Your task to perform on an android device: turn on showing notifications on the lock screen Image 0: 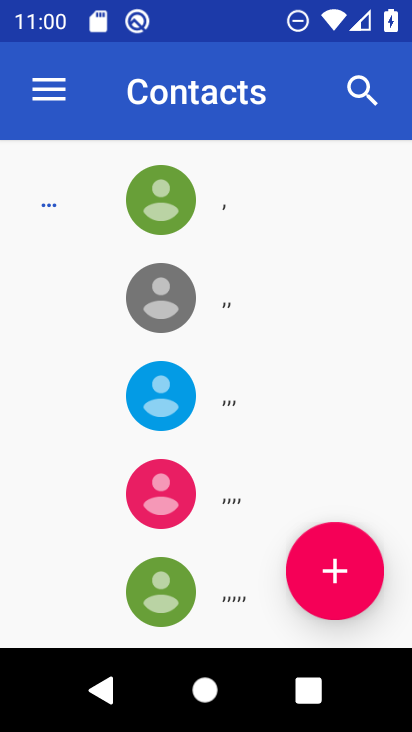
Step 0: press home button
Your task to perform on an android device: turn on showing notifications on the lock screen Image 1: 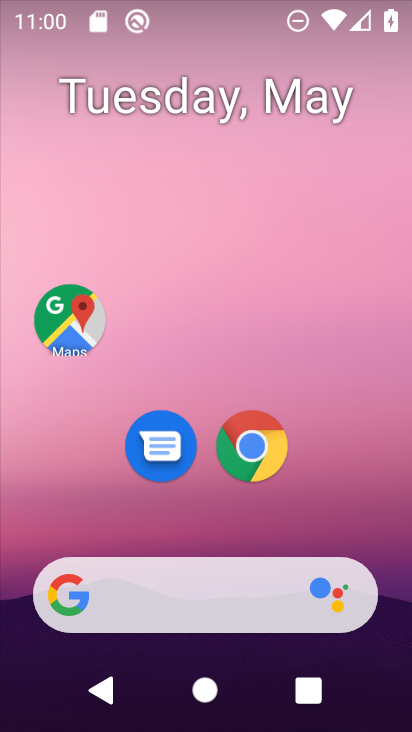
Step 1: drag from (194, 502) to (319, 21)
Your task to perform on an android device: turn on showing notifications on the lock screen Image 2: 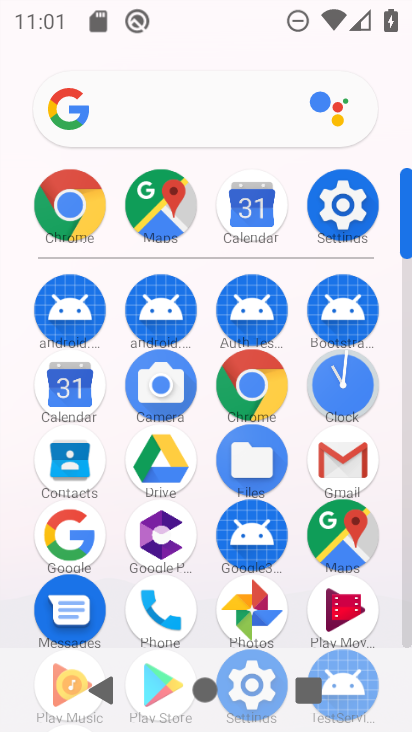
Step 2: drag from (225, 535) to (240, 279)
Your task to perform on an android device: turn on showing notifications on the lock screen Image 3: 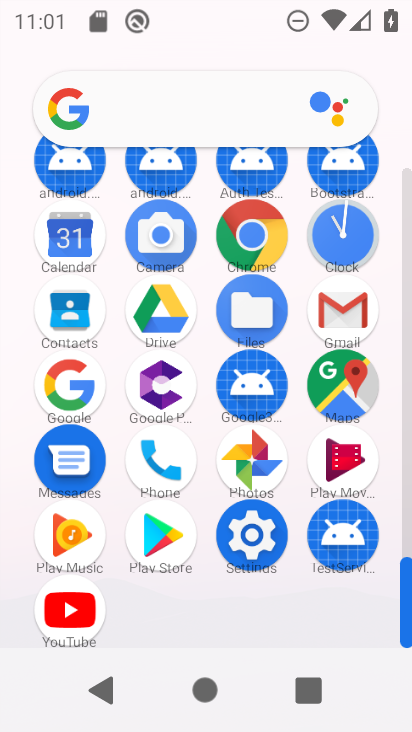
Step 3: click (256, 552)
Your task to perform on an android device: turn on showing notifications on the lock screen Image 4: 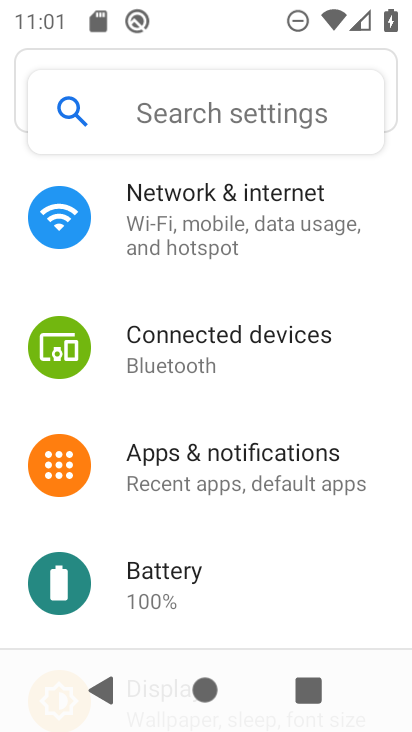
Step 4: click (255, 481)
Your task to perform on an android device: turn on showing notifications on the lock screen Image 5: 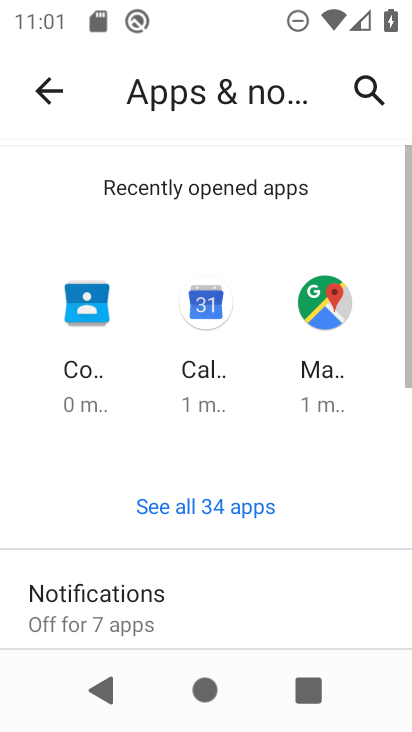
Step 5: drag from (233, 604) to (297, 222)
Your task to perform on an android device: turn on showing notifications on the lock screen Image 6: 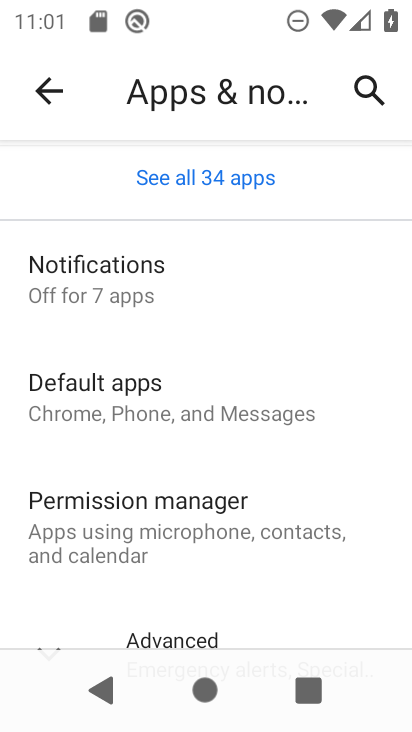
Step 6: click (174, 279)
Your task to perform on an android device: turn on showing notifications on the lock screen Image 7: 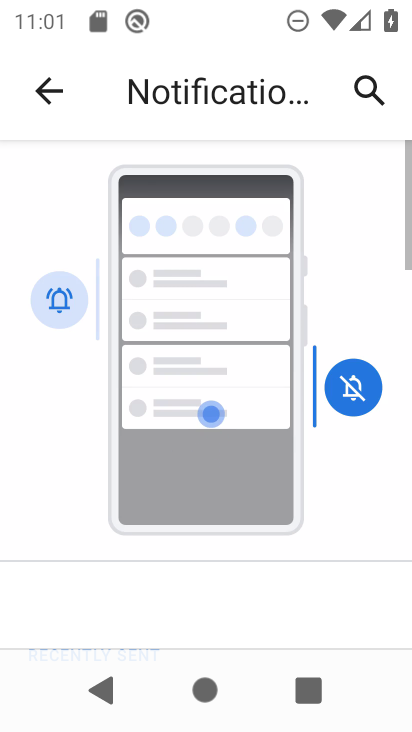
Step 7: drag from (198, 563) to (282, 100)
Your task to perform on an android device: turn on showing notifications on the lock screen Image 8: 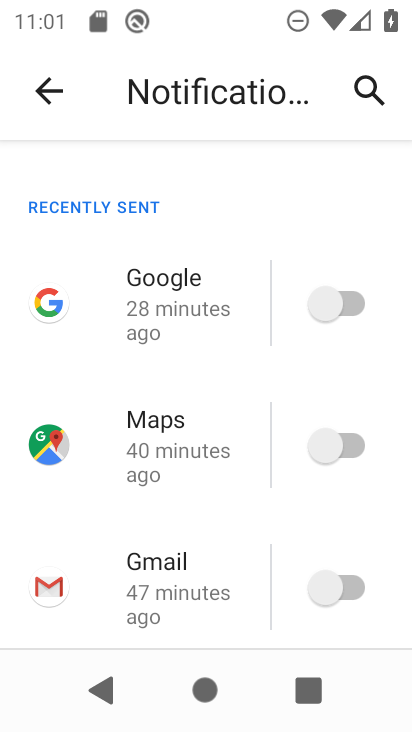
Step 8: drag from (211, 492) to (253, 172)
Your task to perform on an android device: turn on showing notifications on the lock screen Image 9: 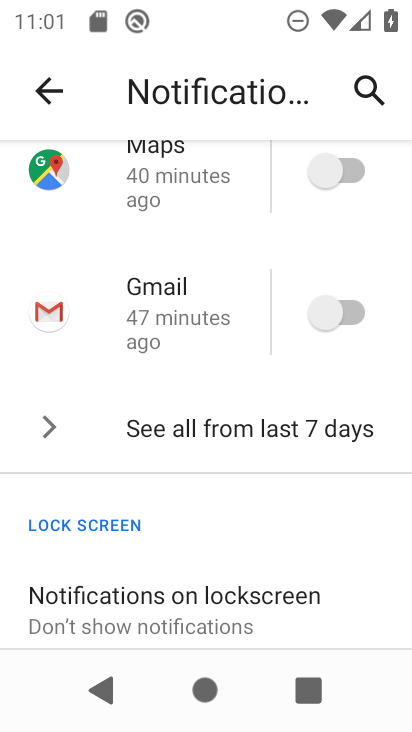
Step 9: click (205, 629)
Your task to perform on an android device: turn on showing notifications on the lock screen Image 10: 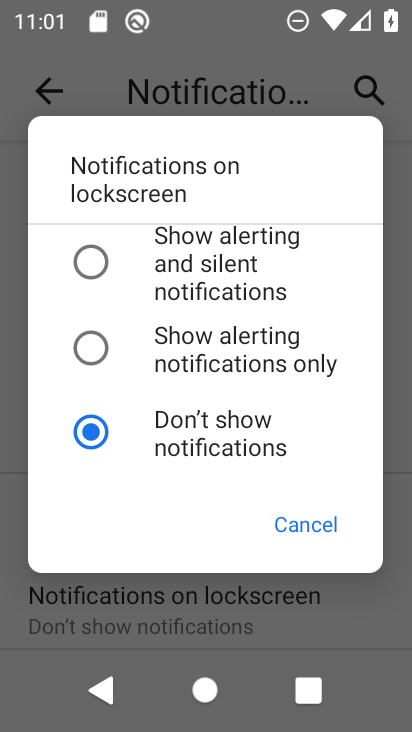
Step 10: click (82, 264)
Your task to perform on an android device: turn on showing notifications on the lock screen Image 11: 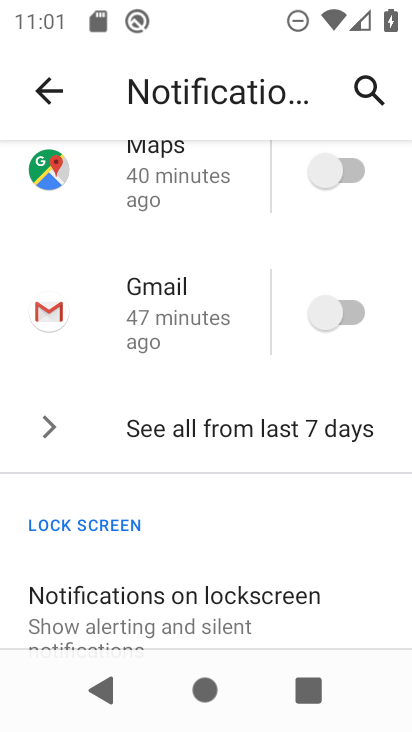
Step 11: task complete